Your task to perform on an android device: turn notification dots off Image 0: 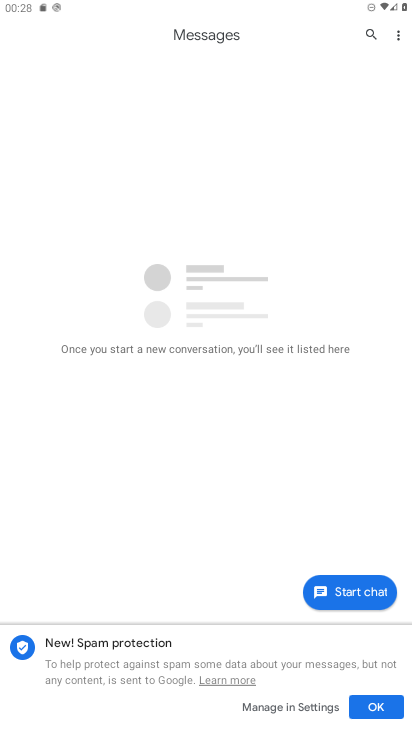
Step 0: press home button
Your task to perform on an android device: turn notification dots off Image 1: 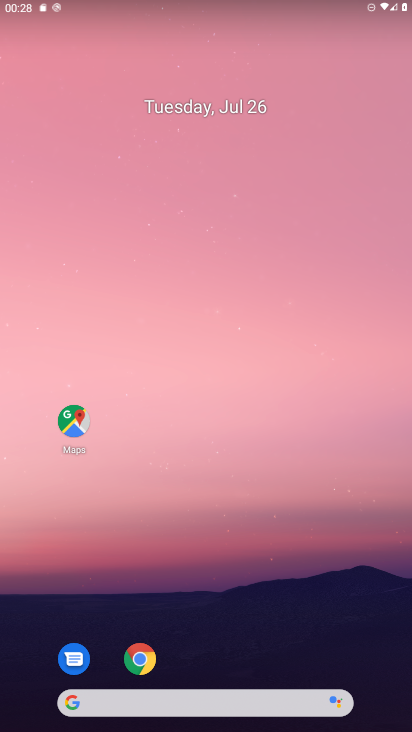
Step 1: drag from (305, 644) to (266, 250)
Your task to perform on an android device: turn notification dots off Image 2: 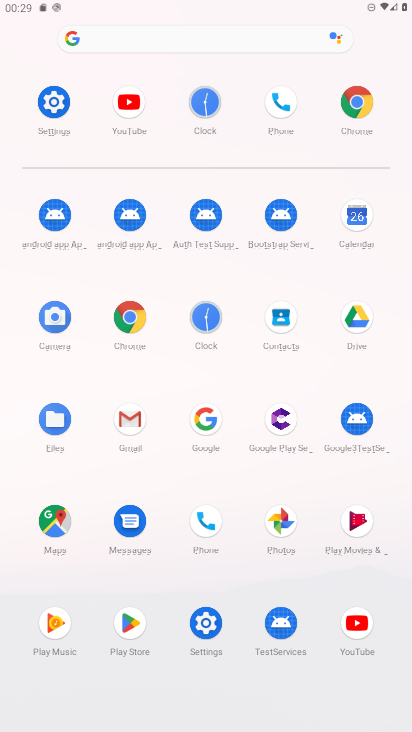
Step 2: click (203, 622)
Your task to perform on an android device: turn notification dots off Image 3: 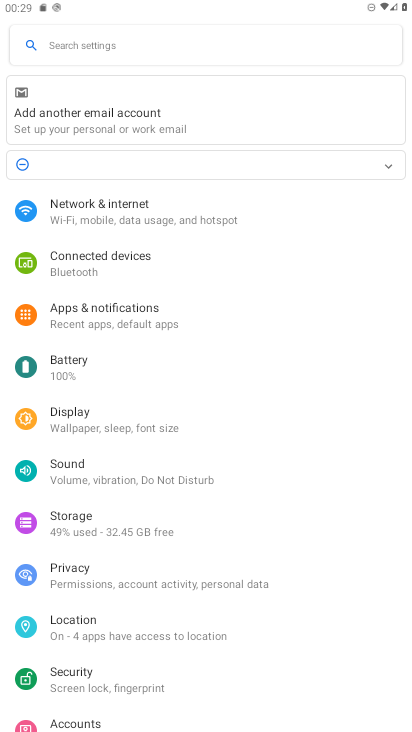
Step 3: click (106, 299)
Your task to perform on an android device: turn notification dots off Image 4: 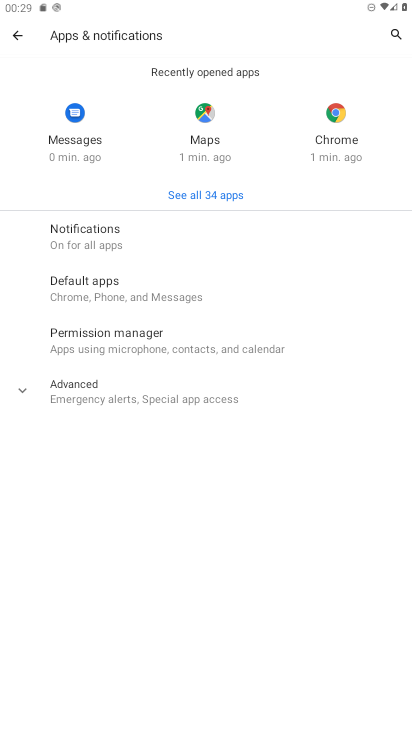
Step 4: click (78, 225)
Your task to perform on an android device: turn notification dots off Image 5: 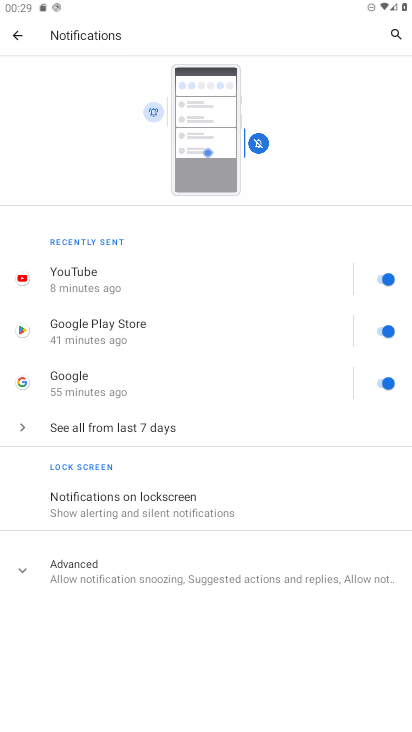
Step 5: click (64, 577)
Your task to perform on an android device: turn notification dots off Image 6: 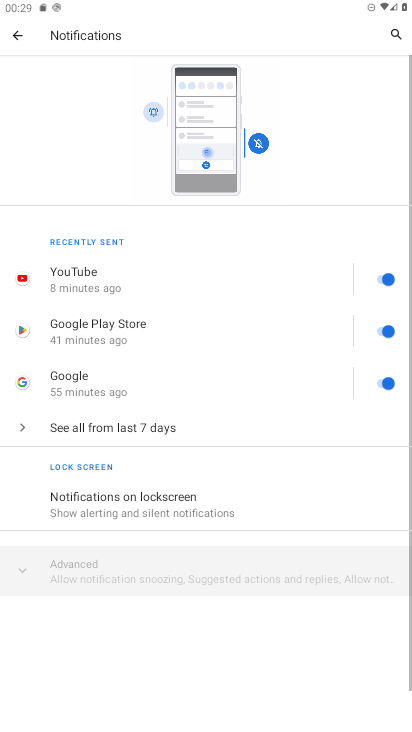
Step 6: drag from (130, 653) to (75, 172)
Your task to perform on an android device: turn notification dots off Image 7: 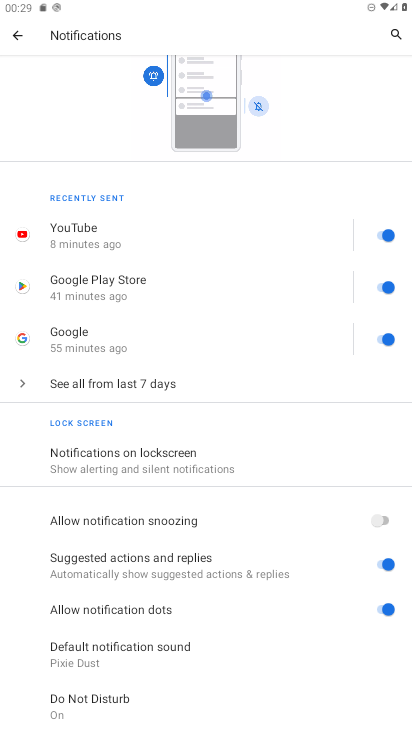
Step 7: click (155, 609)
Your task to perform on an android device: turn notification dots off Image 8: 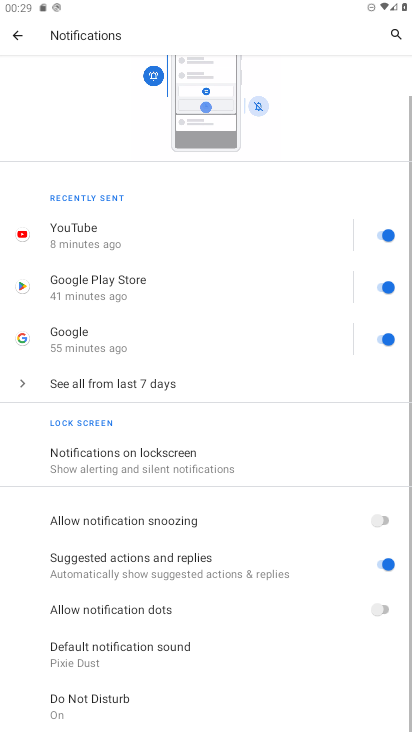
Step 8: task complete